Your task to perform on an android device: all mails in gmail Image 0: 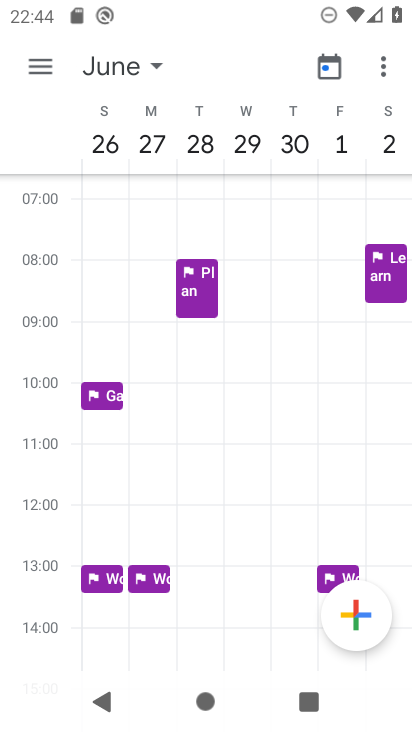
Step 0: press home button
Your task to perform on an android device: all mails in gmail Image 1: 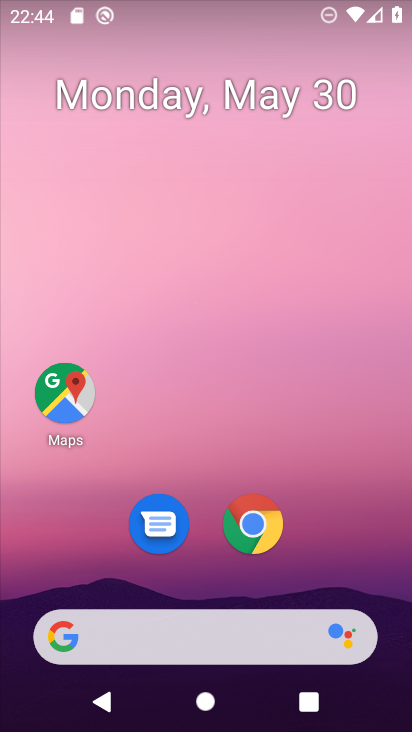
Step 1: drag from (200, 448) to (209, 24)
Your task to perform on an android device: all mails in gmail Image 2: 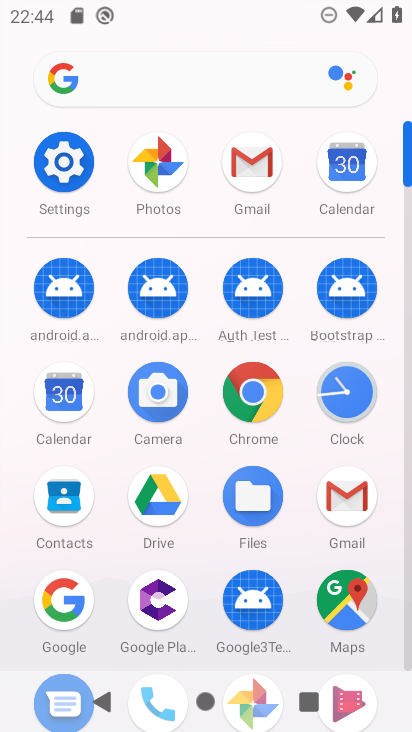
Step 2: click (259, 176)
Your task to perform on an android device: all mails in gmail Image 3: 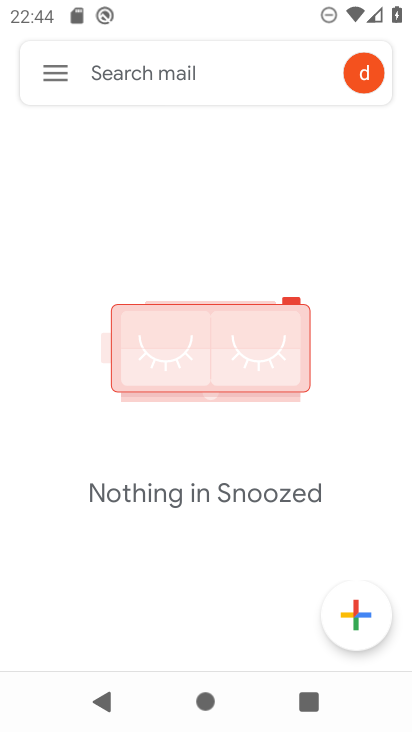
Step 3: click (57, 68)
Your task to perform on an android device: all mails in gmail Image 4: 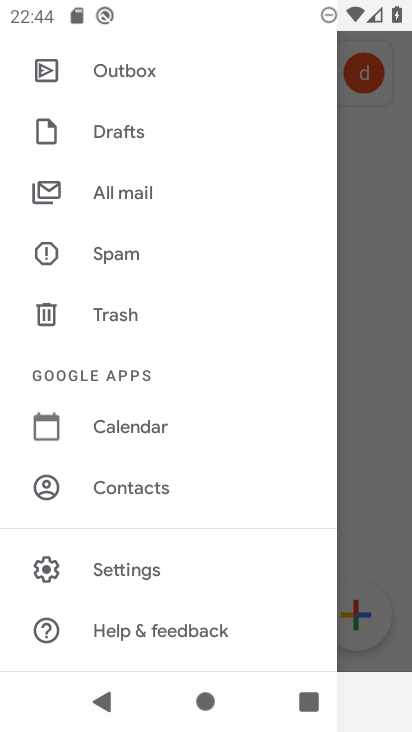
Step 4: click (118, 187)
Your task to perform on an android device: all mails in gmail Image 5: 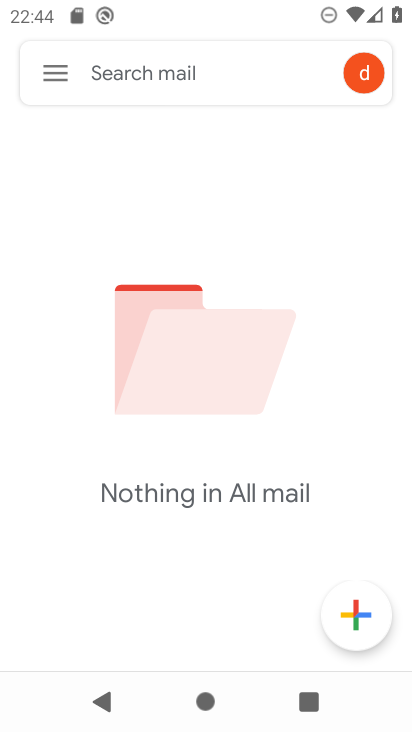
Step 5: task complete